Your task to perform on an android device: Go to privacy settings Image 0: 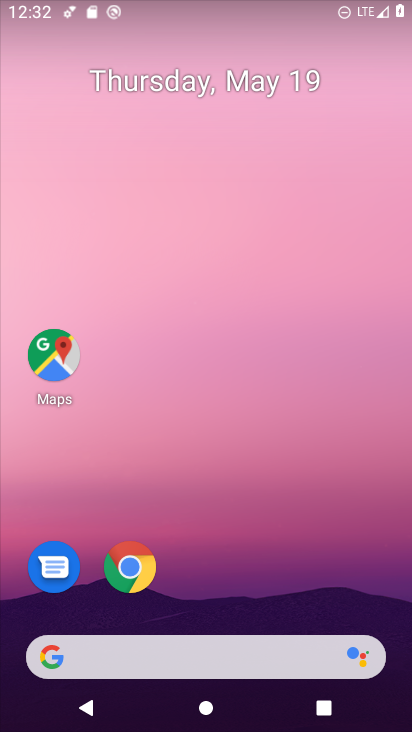
Step 0: drag from (283, 539) to (297, 1)
Your task to perform on an android device: Go to privacy settings Image 1: 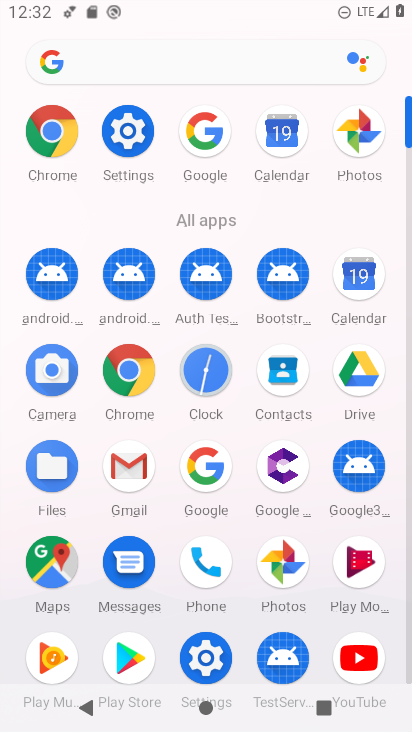
Step 1: click (120, 119)
Your task to perform on an android device: Go to privacy settings Image 2: 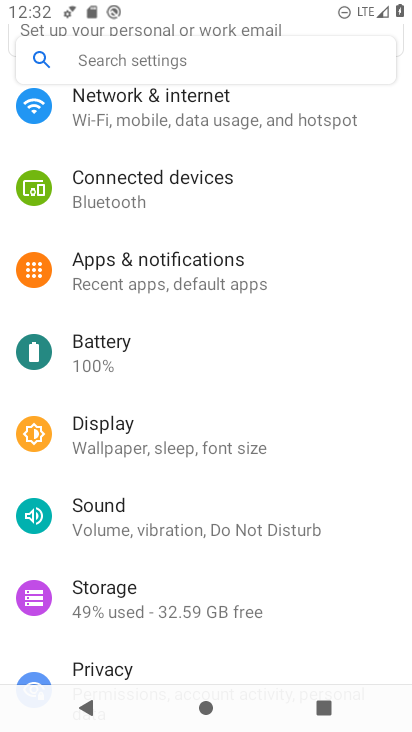
Step 2: drag from (179, 491) to (233, 323)
Your task to perform on an android device: Go to privacy settings Image 3: 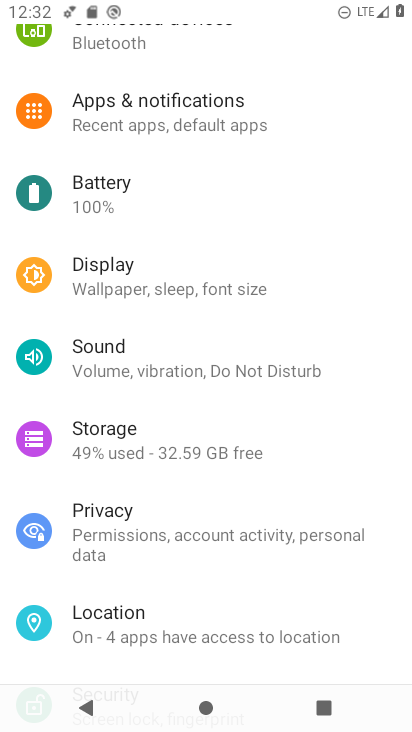
Step 3: click (211, 521)
Your task to perform on an android device: Go to privacy settings Image 4: 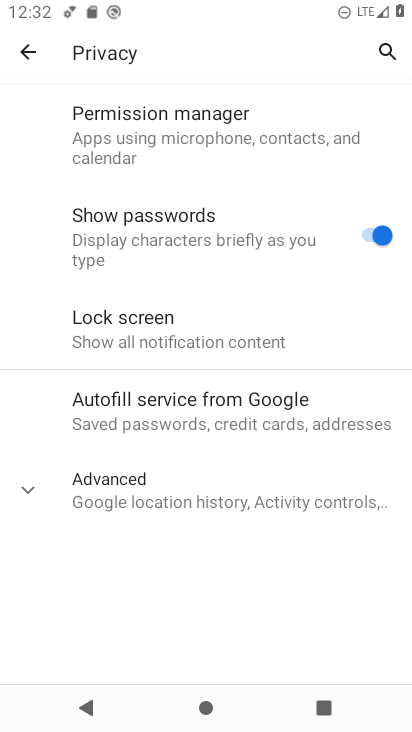
Step 4: task complete